Your task to perform on an android device: Open CNN.com Image 0: 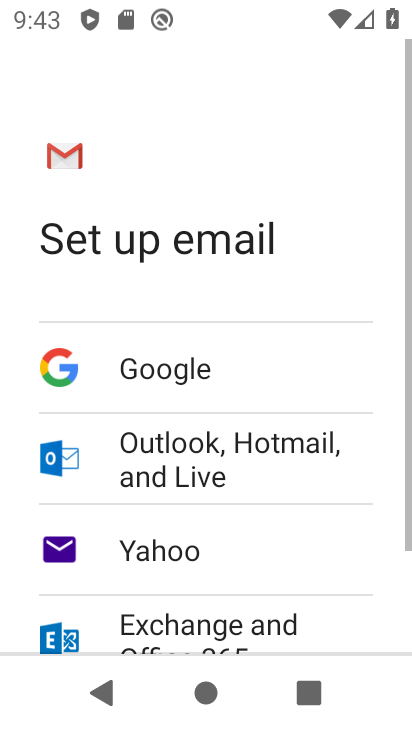
Step 0: press home button
Your task to perform on an android device: Open CNN.com Image 1: 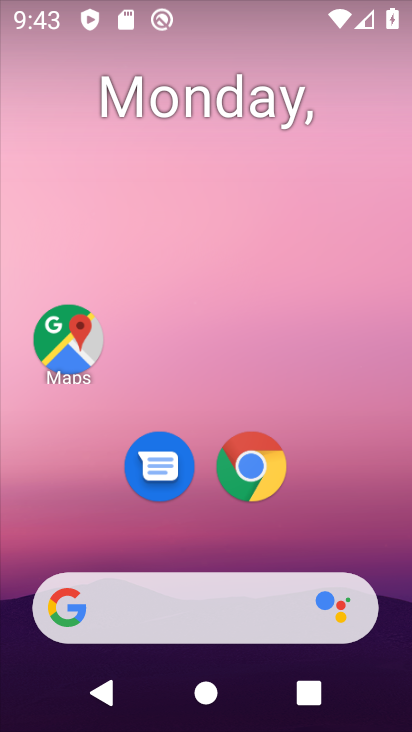
Step 1: click (235, 467)
Your task to perform on an android device: Open CNN.com Image 2: 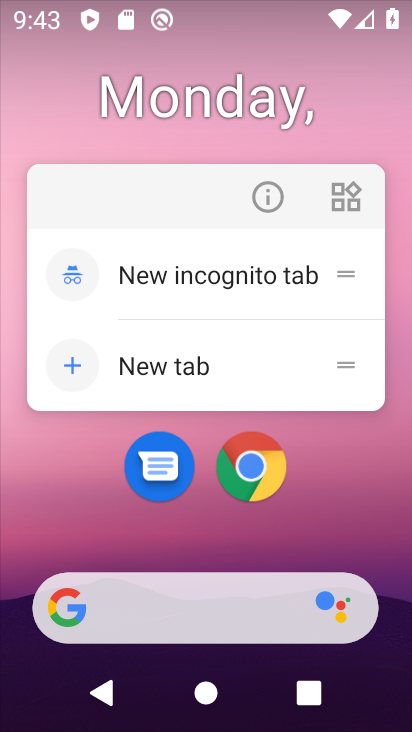
Step 2: click (255, 465)
Your task to perform on an android device: Open CNN.com Image 3: 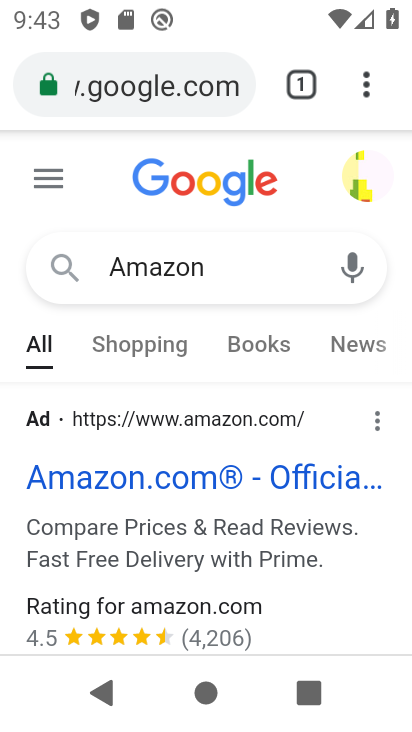
Step 3: click (177, 95)
Your task to perform on an android device: Open CNN.com Image 4: 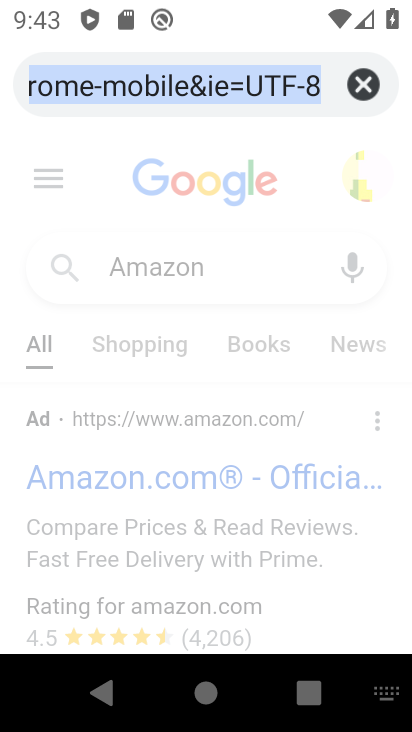
Step 4: type "CNN.com"
Your task to perform on an android device: Open CNN.com Image 5: 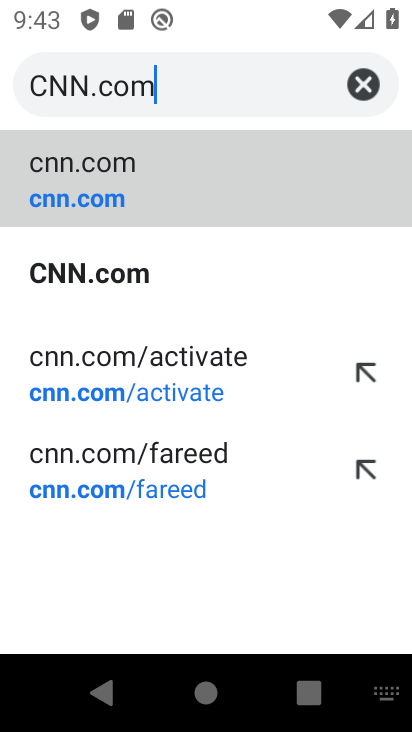
Step 5: click (187, 175)
Your task to perform on an android device: Open CNN.com Image 6: 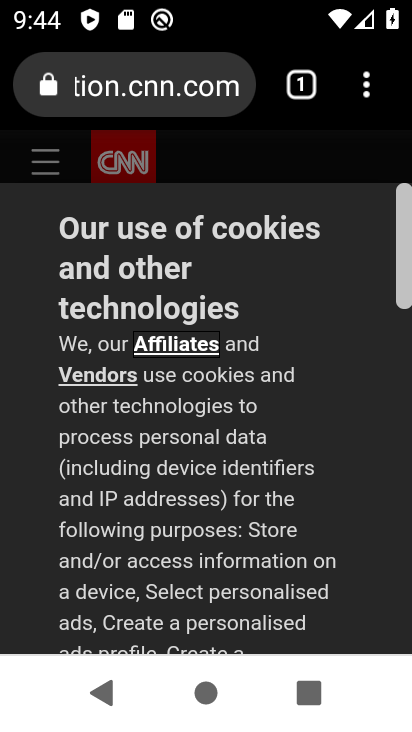
Step 6: task complete